Your task to perform on an android device: refresh tabs in the chrome app Image 0: 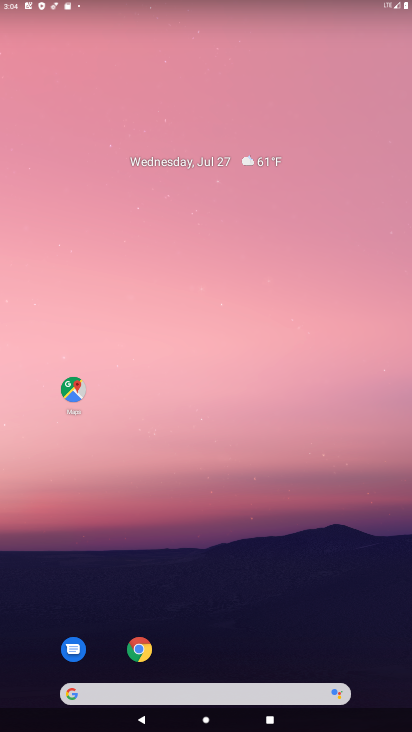
Step 0: click (140, 657)
Your task to perform on an android device: refresh tabs in the chrome app Image 1: 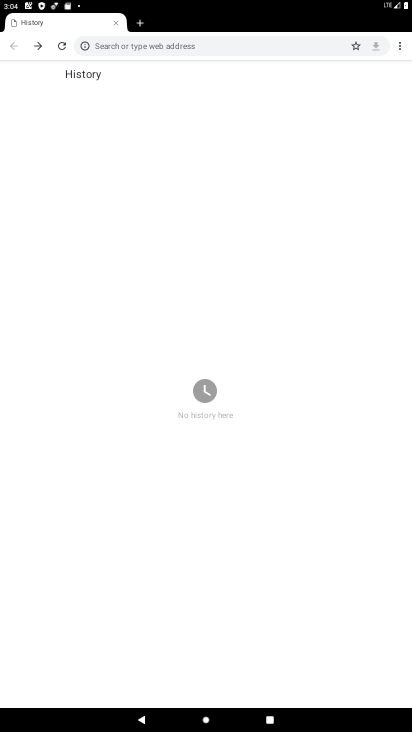
Step 1: click (402, 44)
Your task to perform on an android device: refresh tabs in the chrome app Image 2: 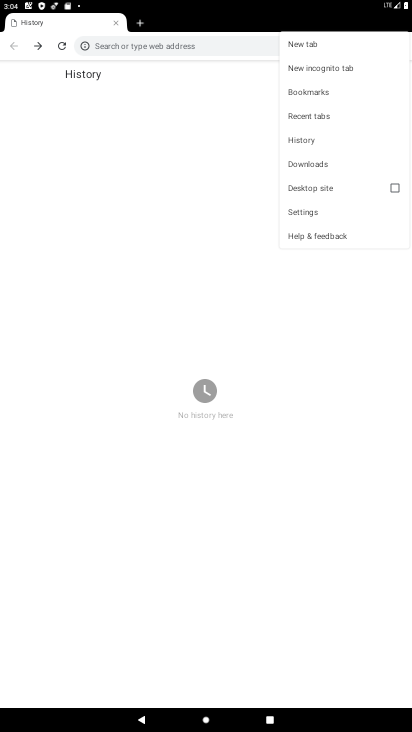
Step 2: click (65, 37)
Your task to perform on an android device: refresh tabs in the chrome app Image 3: 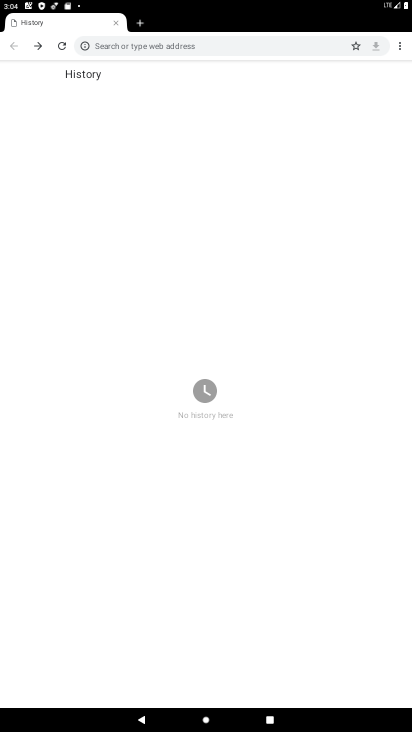
Step 3: click (62, 47)
Your task to perform on an android device: refresh tabs in the chrome app Image 4: 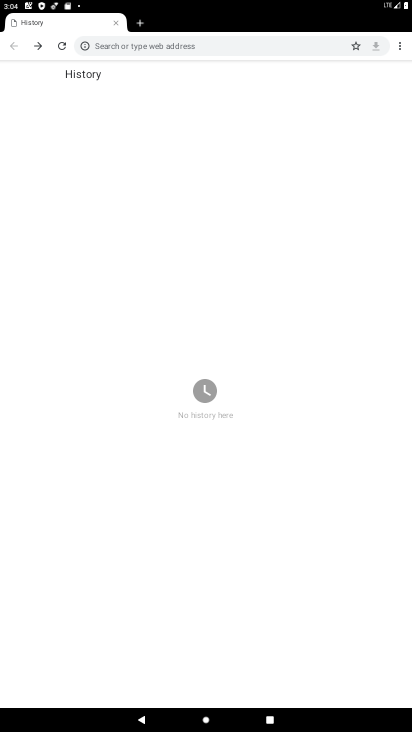
Step 4: task complete